Your task to perform on an android device: empty trash in the gmail app Image 0: 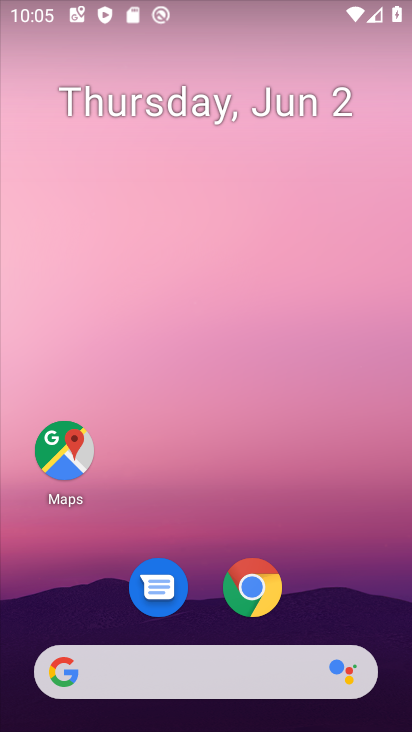
Step 0: drag from (323, 603) to (312, 1)
Your task to perform on an android device: empty trash in the gmail app Image 1: 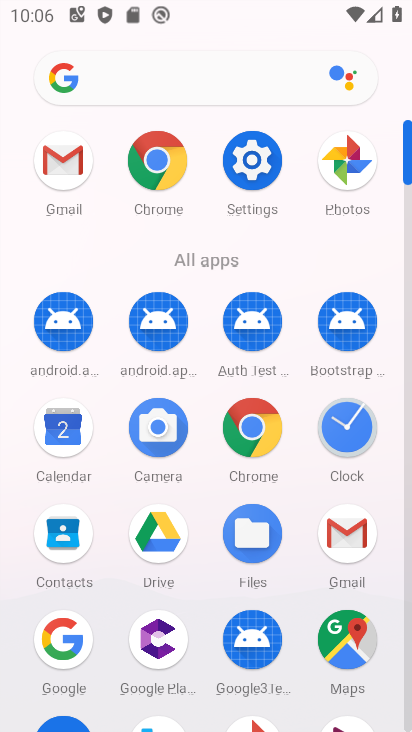
Step 1: click (344, 509)
Your task to perform on an android device: empty trash in the gmail app Image 2: 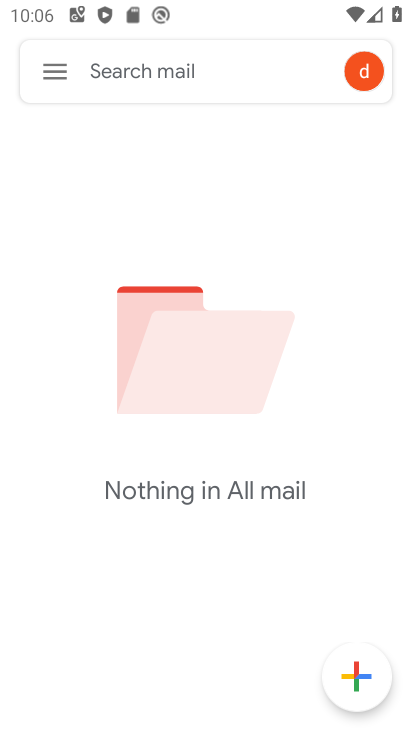
Step 2: click (51, 65)
Your task to perform on an android device: empty trash in the gmail app Image 3: 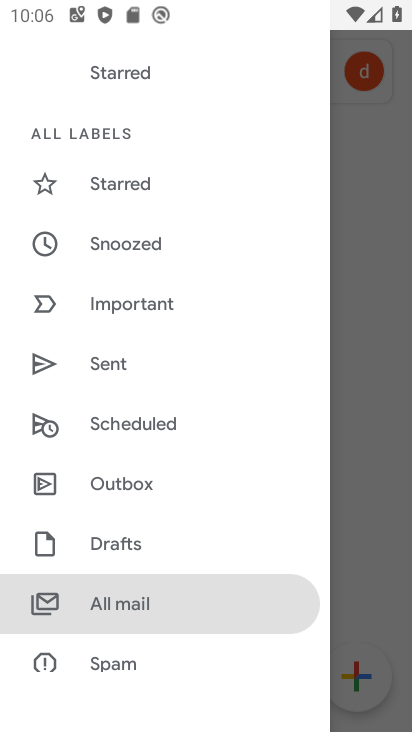
Step 3: drag from (213, 583) to (213, 215)
Your task to perform on an android device: empty trash in the gmail app Image 4: 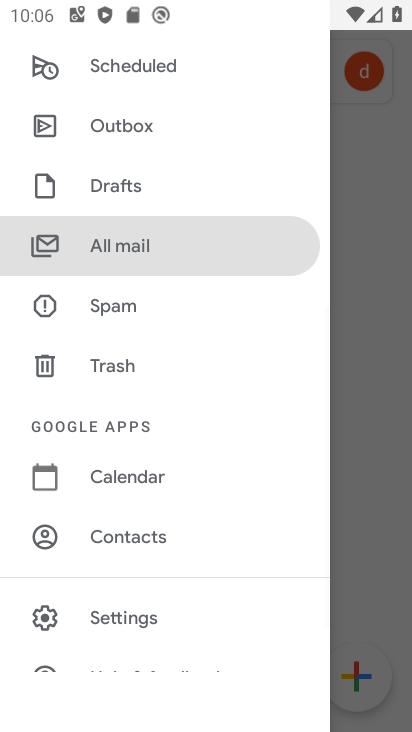
Step 4: click (115, 373)
Your task to perform on an android device: empty trash in the gmail app Image 5: 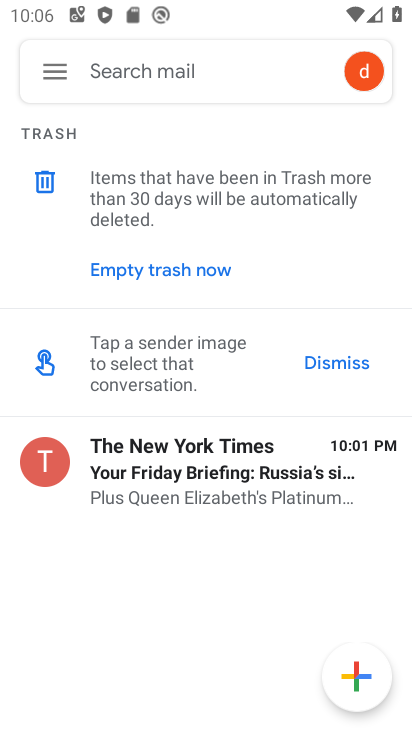
Step 5: click (203, 276)
Your task to perform on an android device: empty trash in the gmail app Image 6: 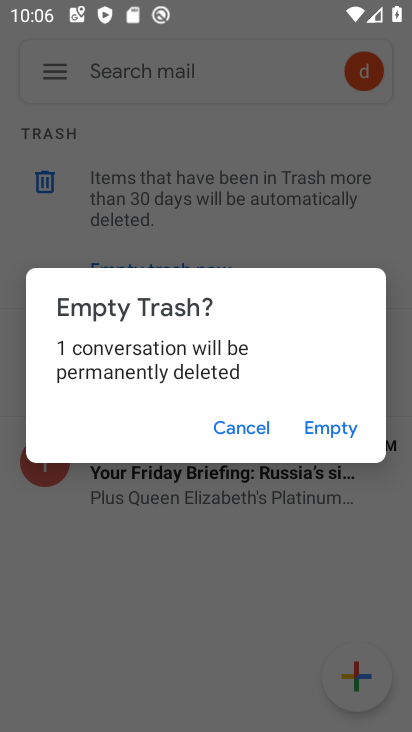
Step 6: click (336, 428)
Your task to perform on an android device: empty trash in the gmail app Image 7: 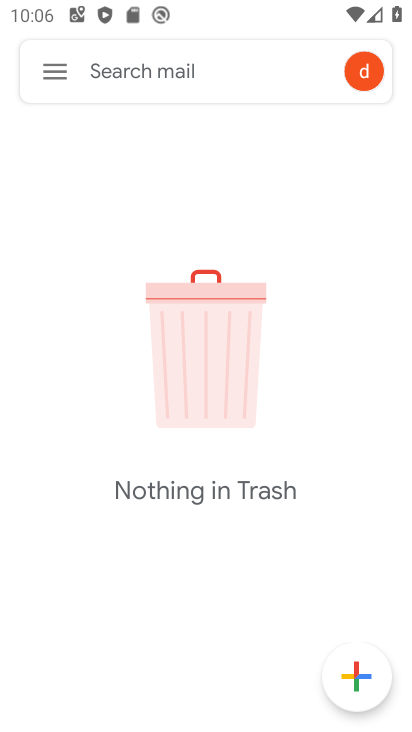
Step 7: task complete